Your task to perform on an android device: Open my contact list Image 0: 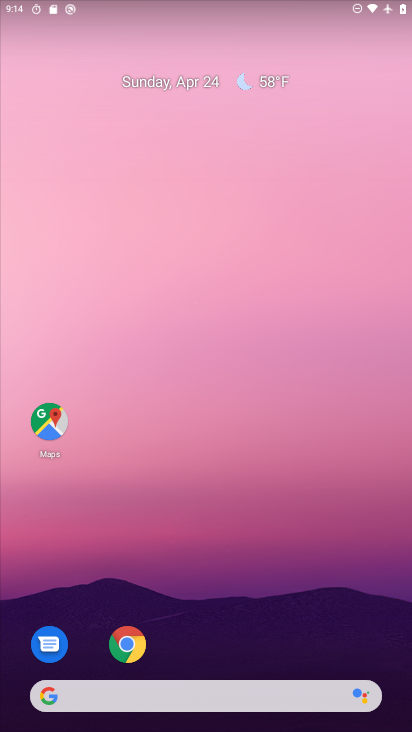
Step 0: drag from (236, 364) to (247, 54)
Your task to perform on an android device: Open my contact list Image 1: 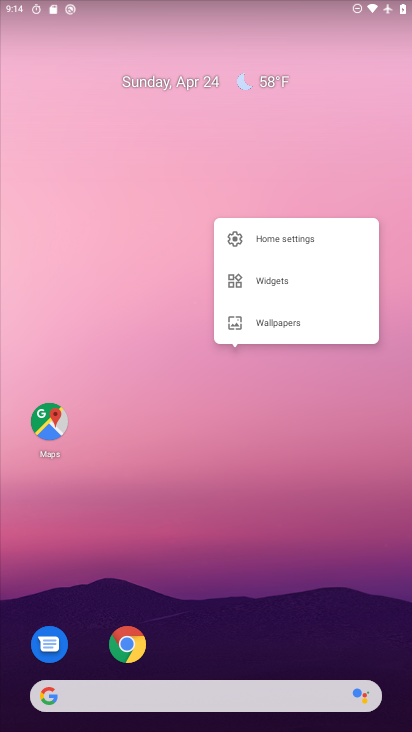
Step 1: click (202, 580)
Your task to perform on an android device: Open my contact list Image 2: 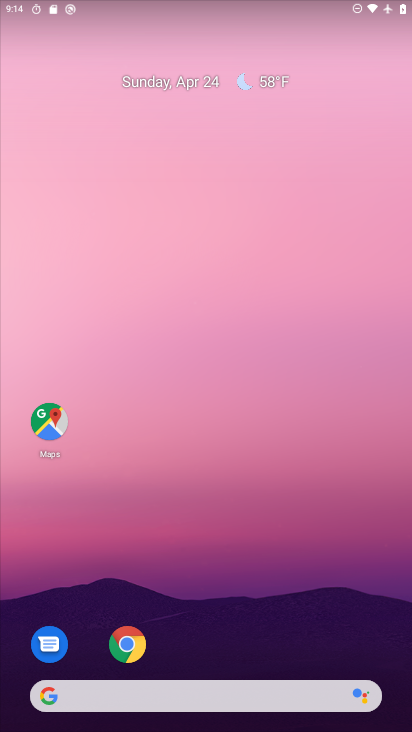
Step 2: drag from (205, 430) to (212, 113)
Your task to perform on an android device: Open my contact list Image 3: 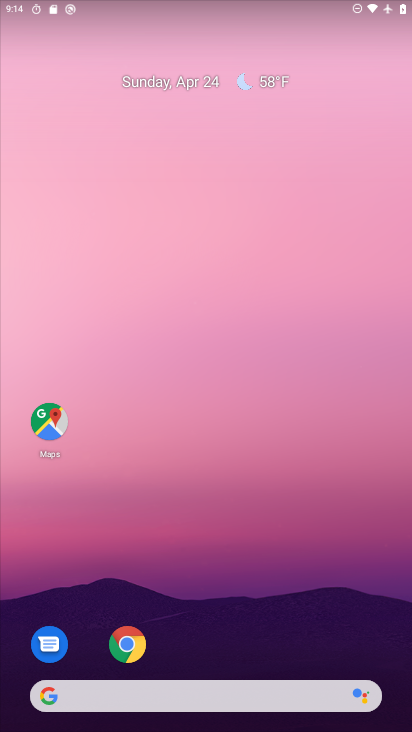
Step 3: drag from (217, 657) to (221, 0)
Your task to perform on an android device: Open my contact list Image 4: 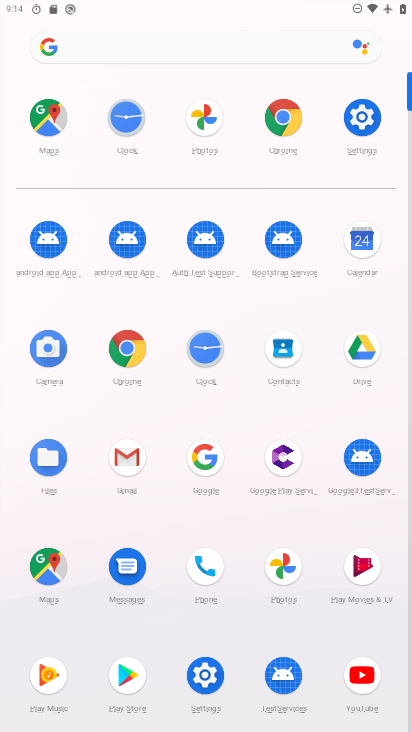
Step 4: click (279, 342)
Your task to perform on an android device: Open my contact list Image 5: 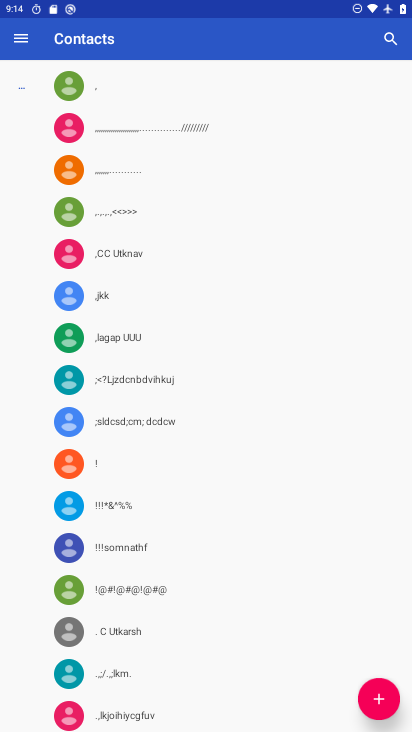
Step 5: task complete